Your task to perform on an android device: turn off notifications in google photos Image 0: 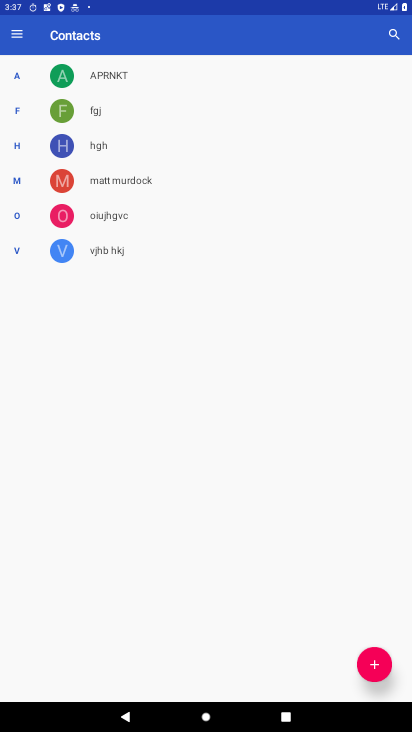
Step 0: press home button
Your task to perform on an android device: turn off notifications in google photos Image 1: 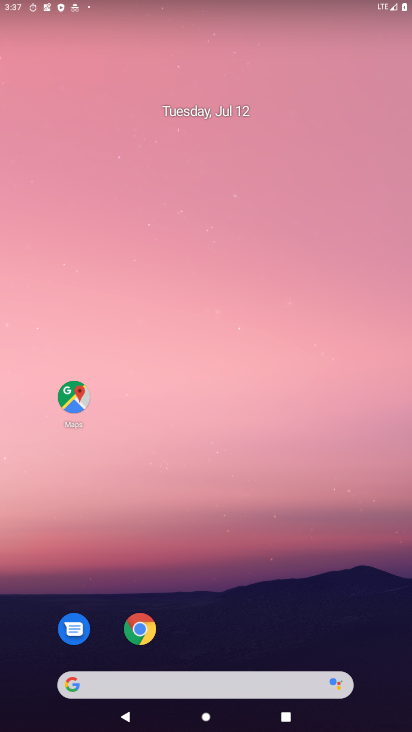
Step 1: drag from (248, 631) to (296, 313)
Your task to perform on an android device: turn off notifications in google photos Image 2: 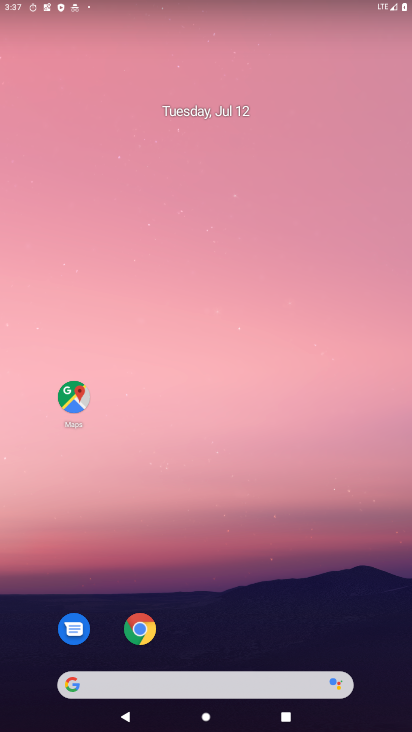
Step 2: drag from (218, 626) to (257, 278)
Your task to perform on an android device: turn off notifications in google photos Image 3: 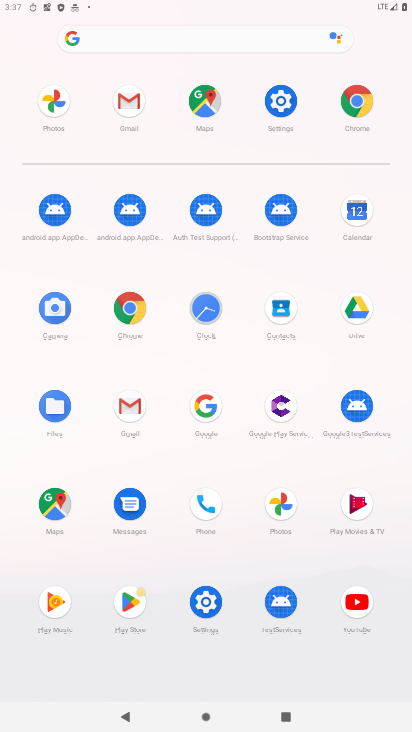
Step 3: click (283, 494)
Your task to perform on an android device: turn off notifications in google photos Image 4: 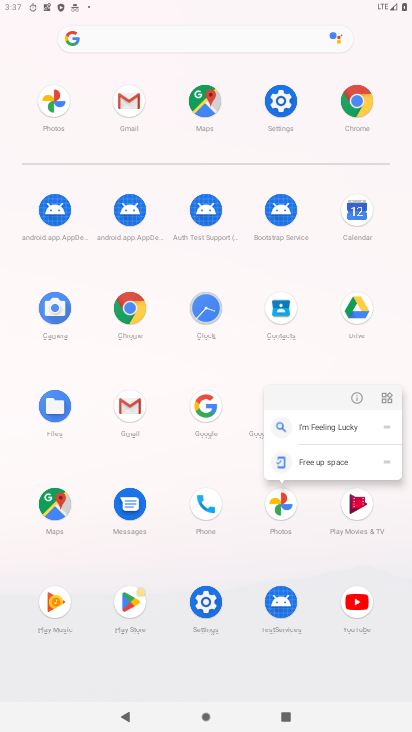
Step 4: click (357, 396)
Your task to perform on an android device: turn off notifications in google photos Image 5: 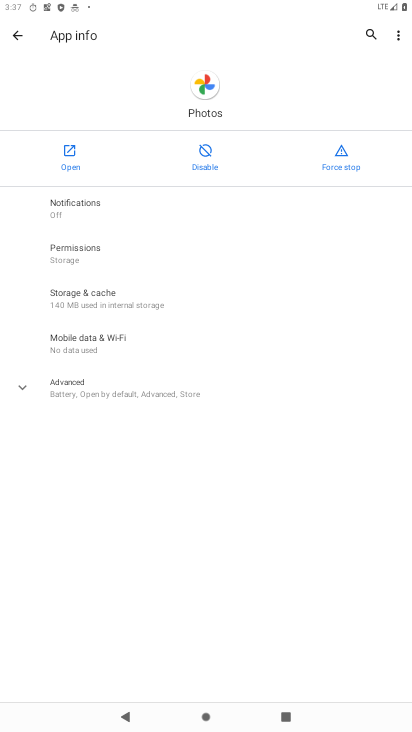
Step 5: click (113, 209)
Your task to perform on an android device: turn off notifications in google photos Image 6: 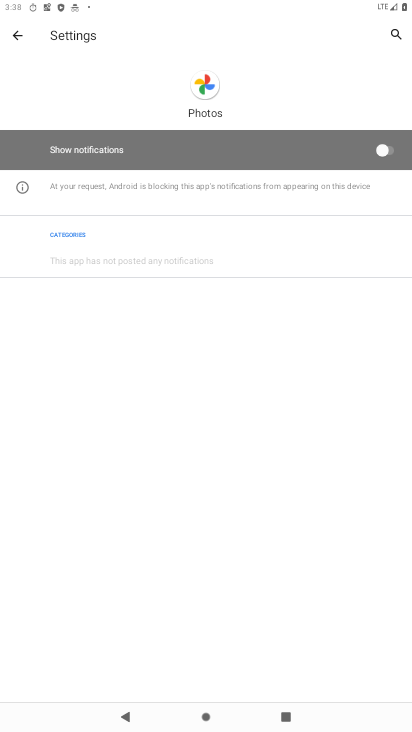
Step 6: task complete